Your task to perform on an android device: View the shopping cart on costco. Image 0: 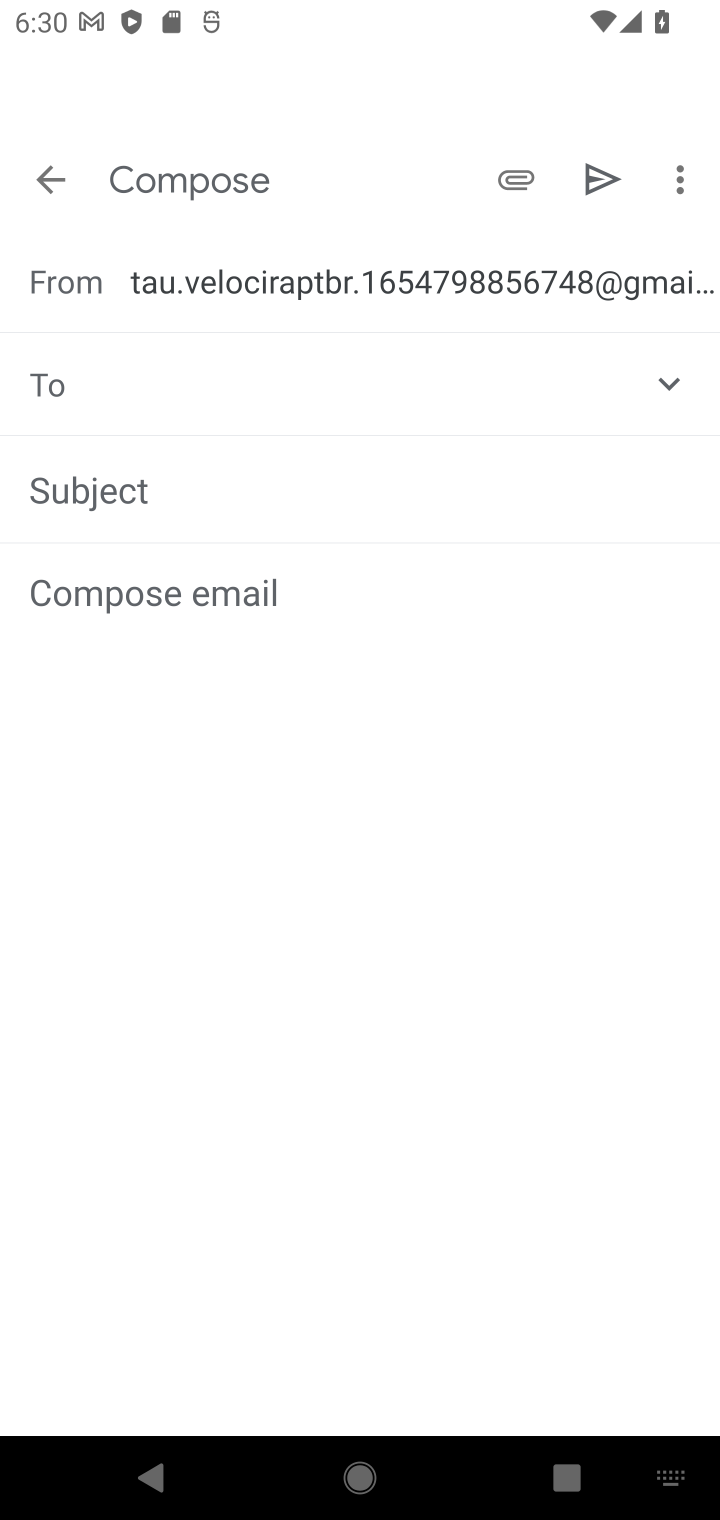
Step 0: press home button
Your task to perform on an android device: View the shopping cart on costco. Image 1: 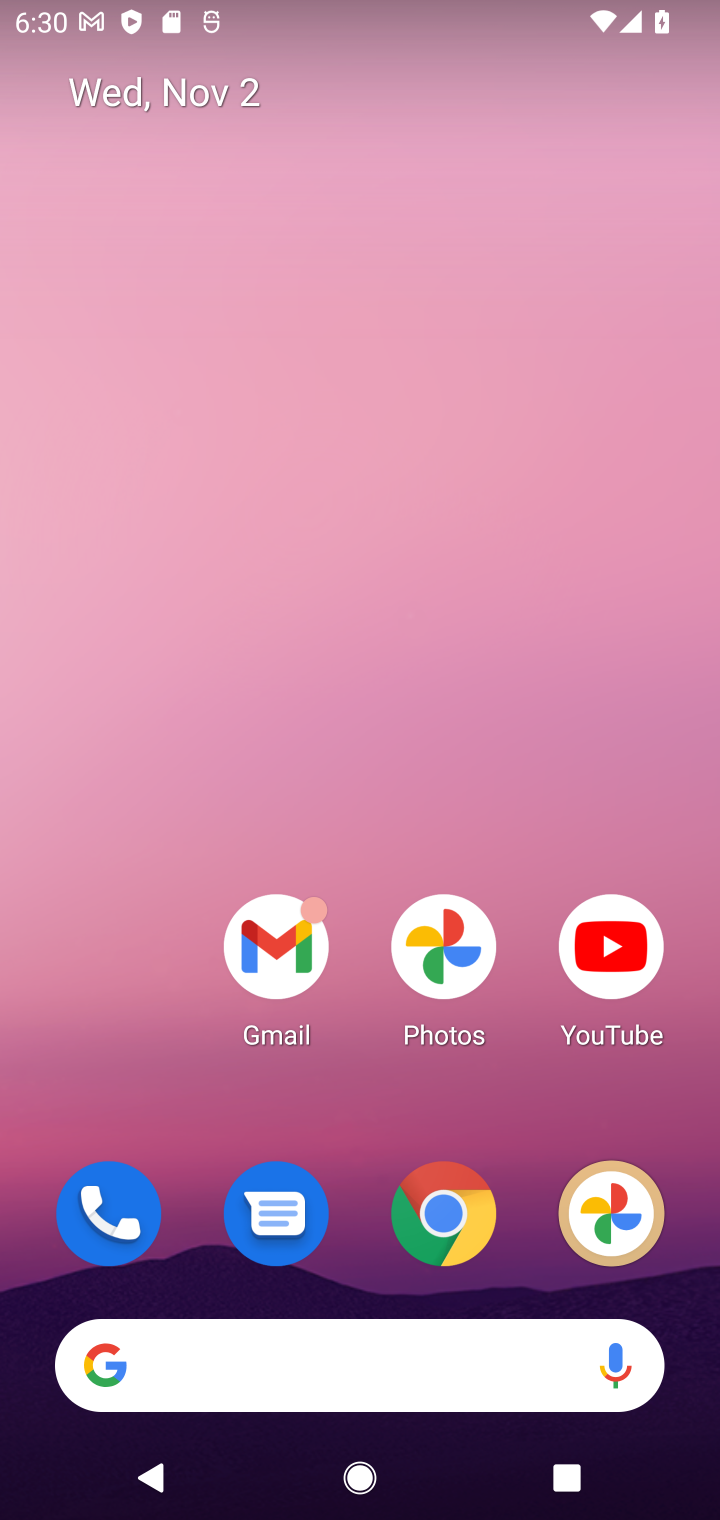
Step 1: click (453, 1214)
Your task to perform on an android device: View the shopping cart on costco. Image 2: 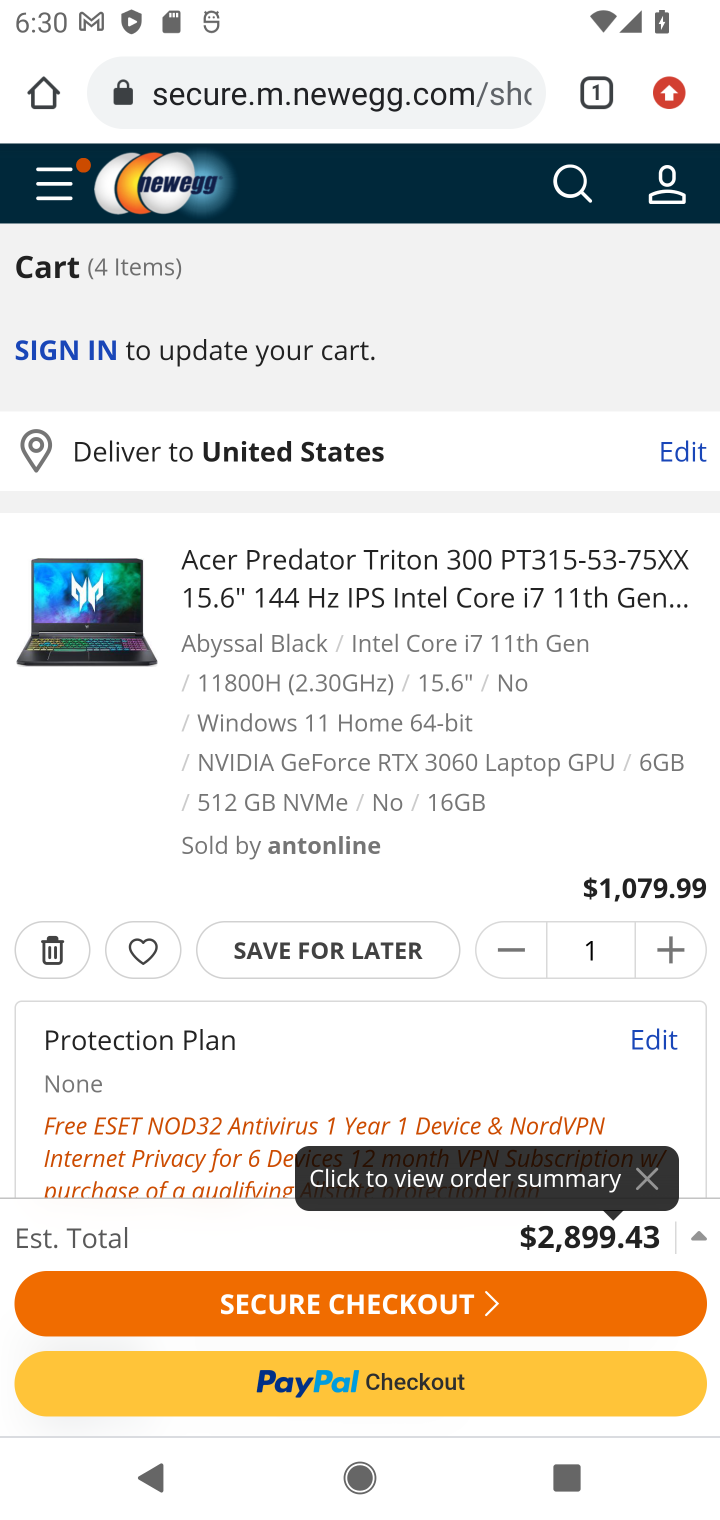
Step 2: click (342, 60)
Your task to perform on an android device: View the shopping cart on costco. Image 3: 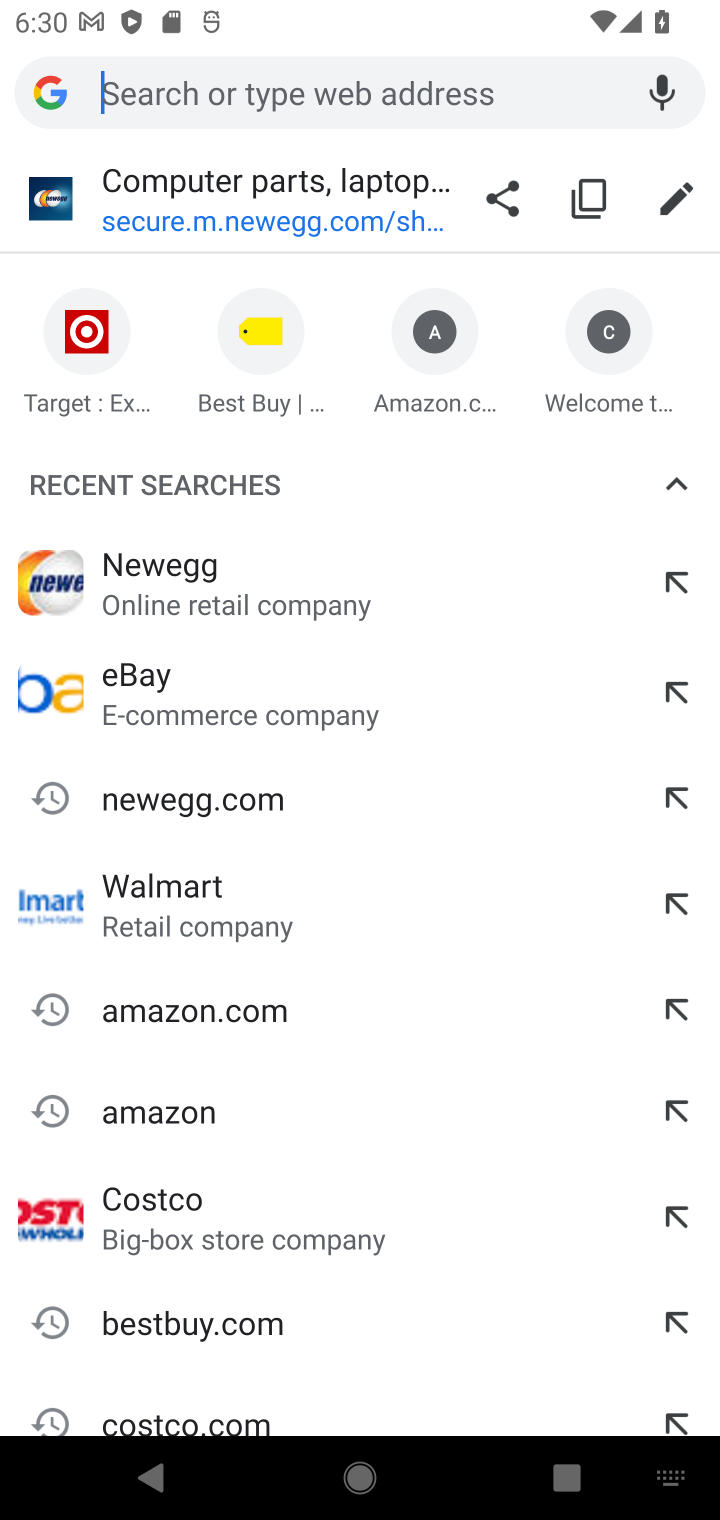
Step 3: click (164, 1202)
Your task to perform on an android device: View the shopping cart on costco. Image 4: 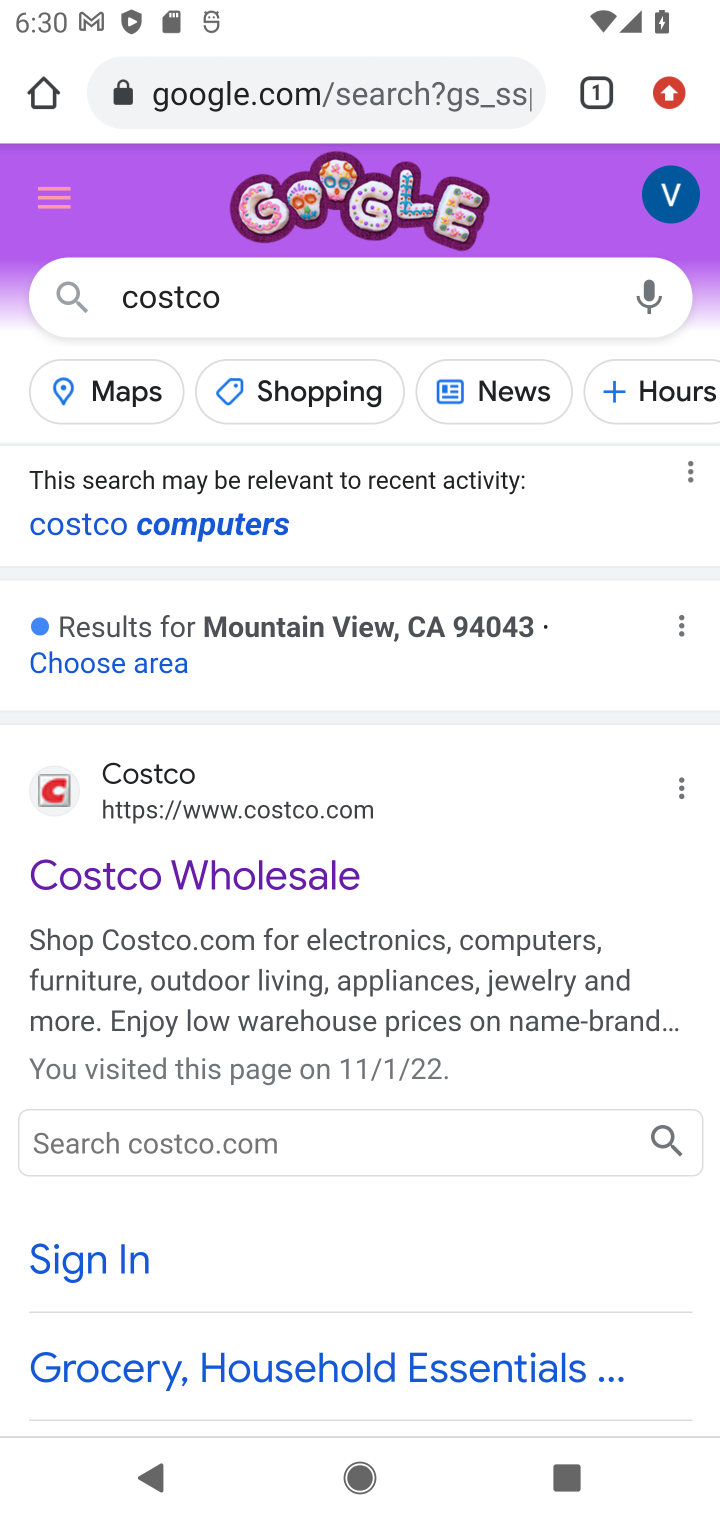
Step 4: click (140, 862)
Your task to perform on an android device: View the shopping cart on costco. Image 5: 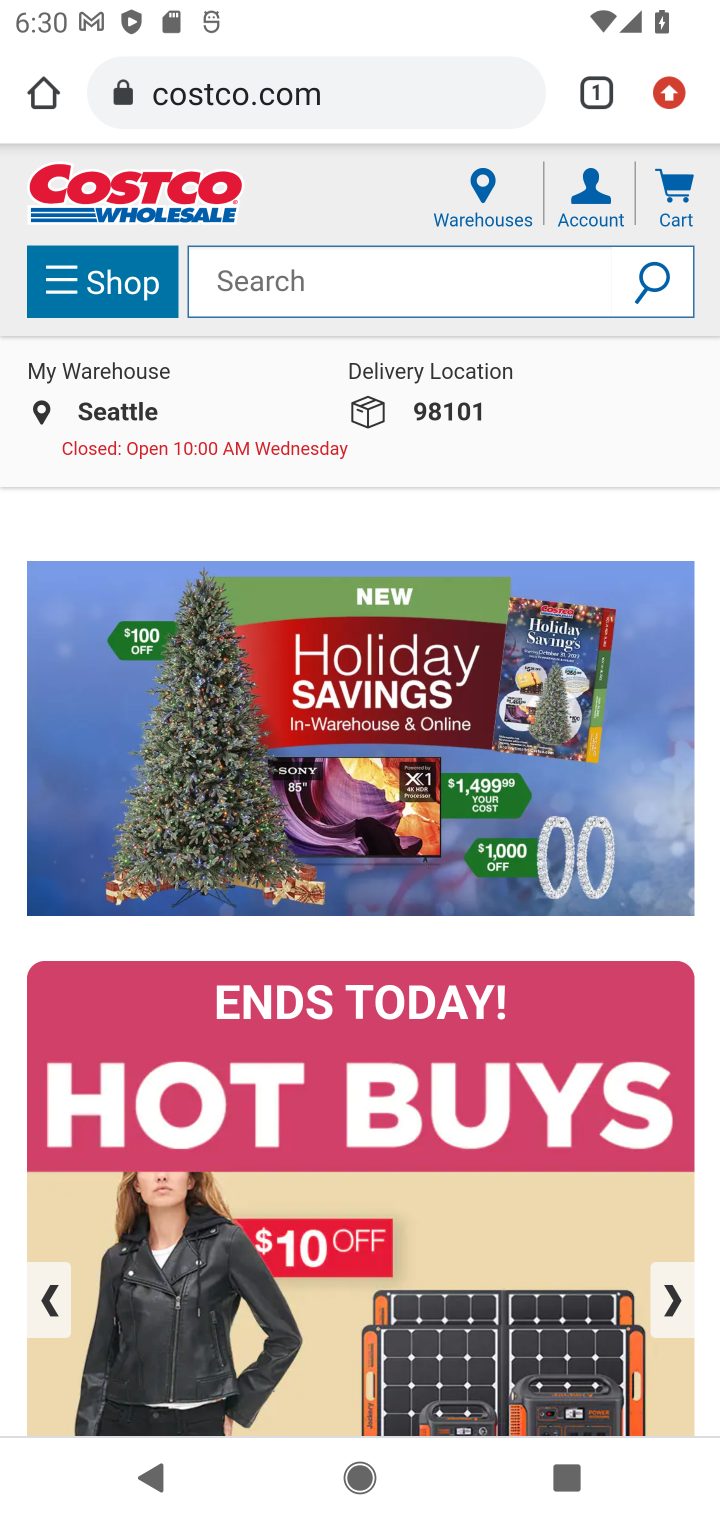
Step 5: click (670, 184)
Your task to perform on an android device: View the shopping cart on costco. Image 6: 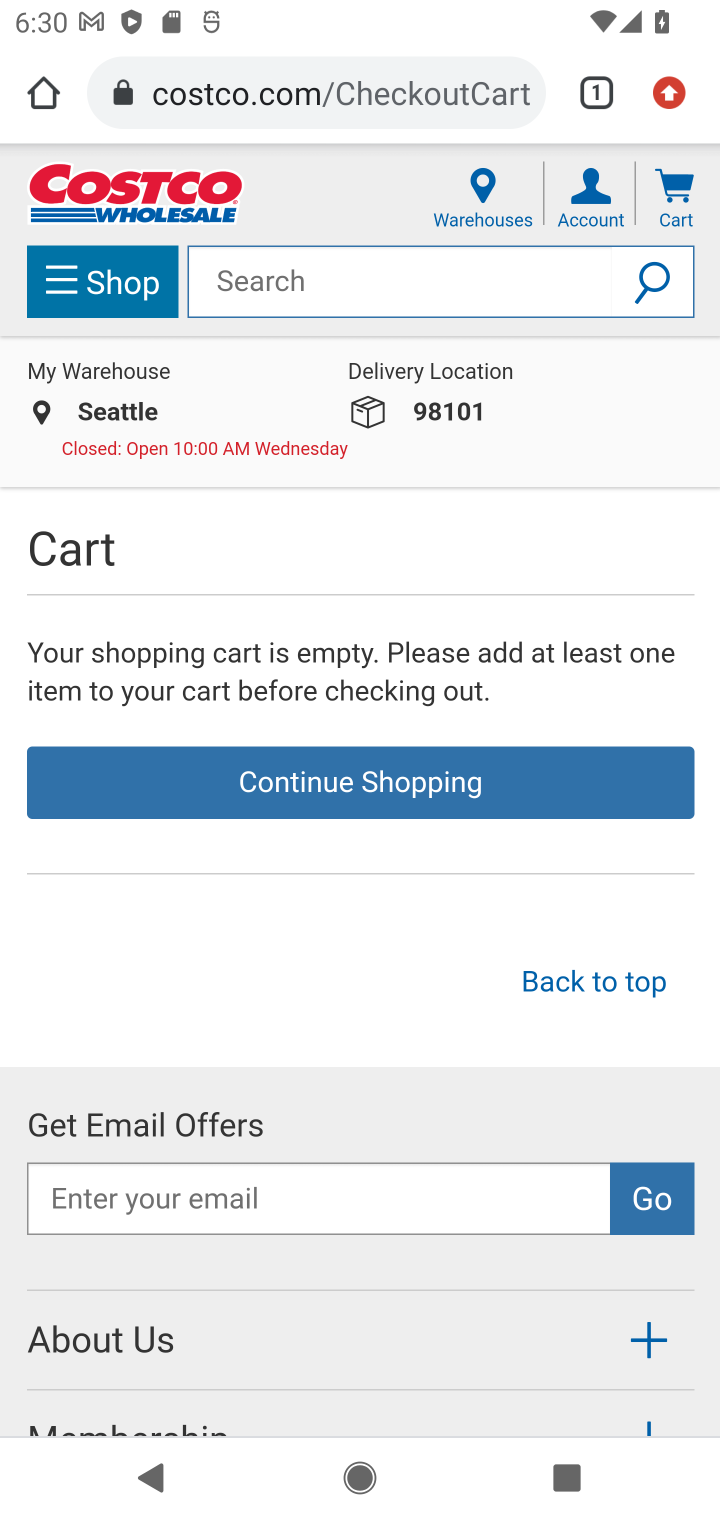
Step 6: task complete